Your task to perform on an android device: Go to battery settings Image 0: 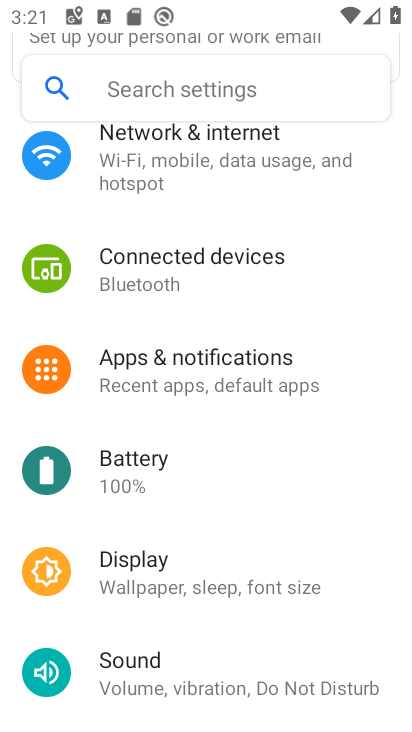
Step 0: click (179, 463)
Your task to perform on an android device: Go to battery settings Image 1: 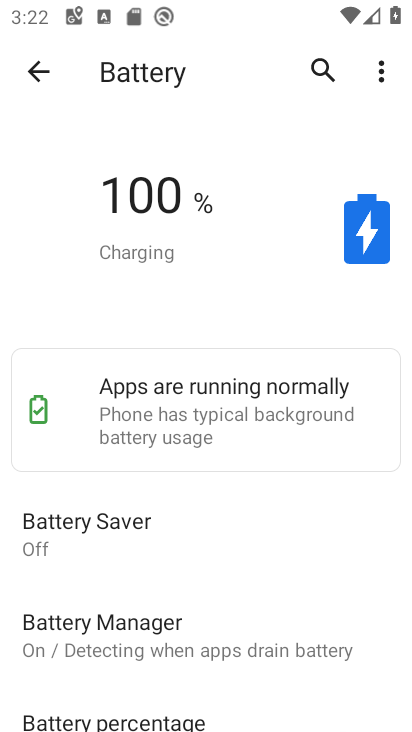
Step 1: task complete